Your task to perform on an android device: turn off javascript in the chrome app Image 0: 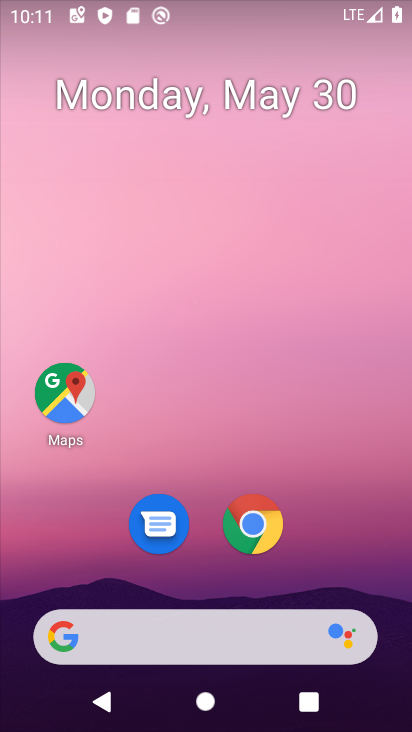
Step 0: click (251, 505)
Your task to perform on an android device: turn off javascript in the chrome app Image 1: 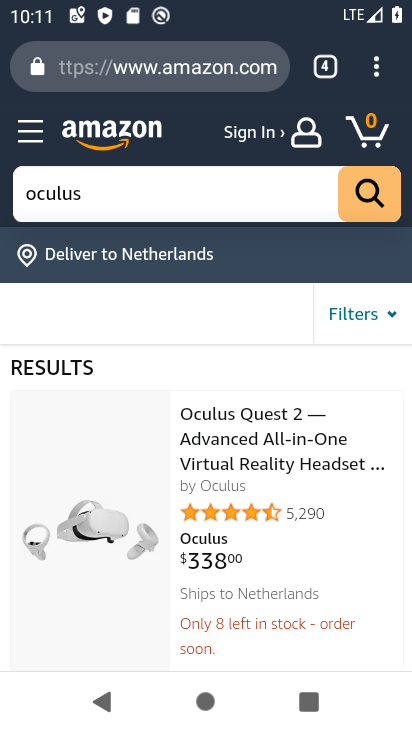
Step 1: click (378, 74)
Your task to perform on an android device: turn off javascript in the chrome app Image 2: 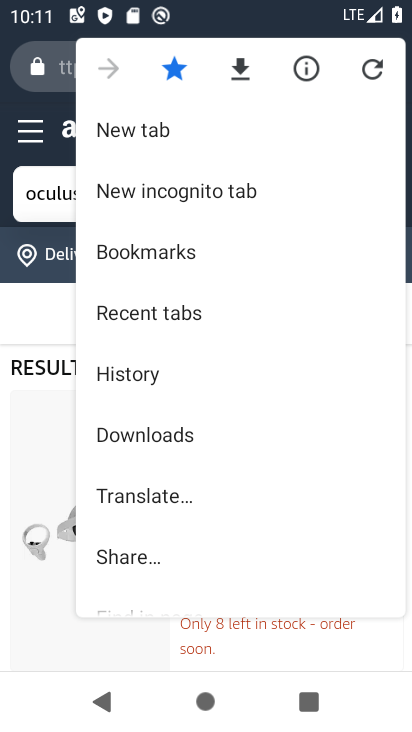
Step 2: drag from (300, 464) to (336, 172)
Your task to perform on an android device: turn off javascript in the chrome app Image 3: 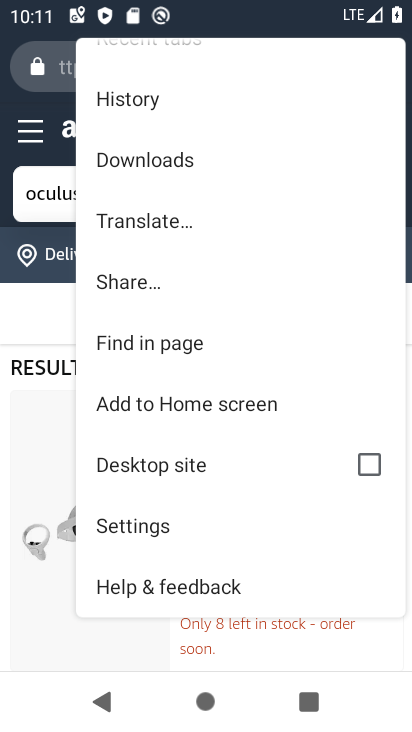
Step 3: click (207, 528)
Your task to perform on an android device: turn off javascript in the chrome app Image 4: 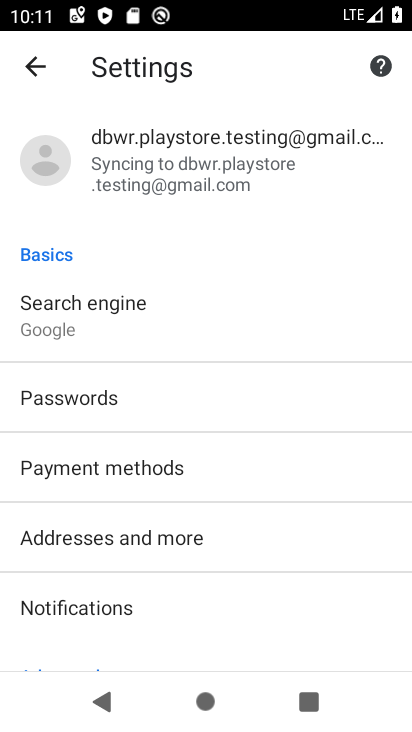
Step 4: drag from (220, 579) to (245, 291)
Your task to perform on an android device: turn off javascript in the chrome app Image 5: 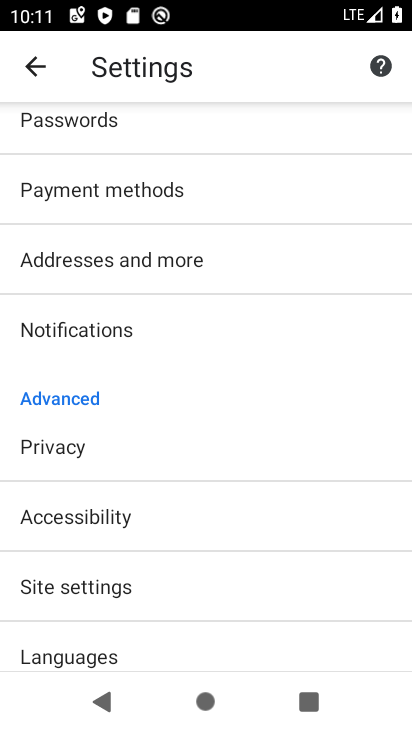
Step 5: click (209, 579)
Your task to perform on an android device: turn off javascript in the chrome app Image 6: 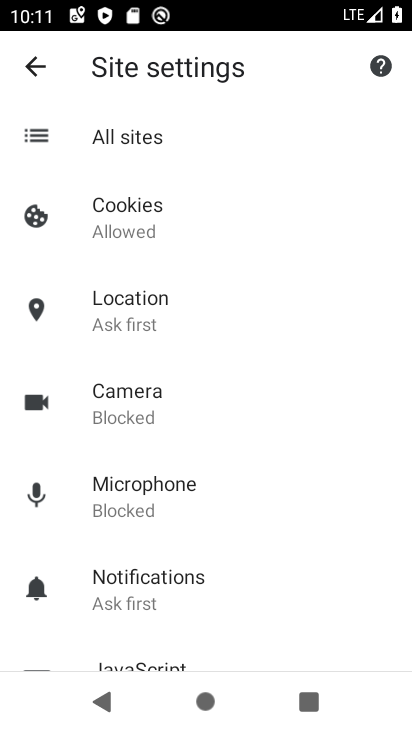
Step 6: drag from (246, 478) to (240, 233)
Your task to perform on an android device: turn off javascript in the chrome app Image 7: 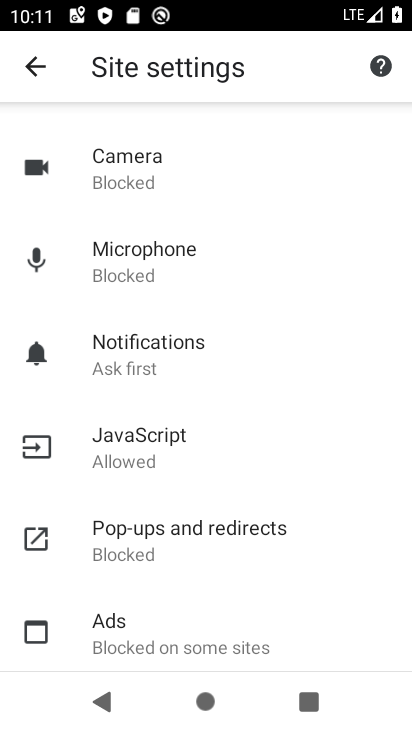
Step 7: click (208, 445)
Your task to perform on an android device: turn off javascript in the chrome app Image 8: 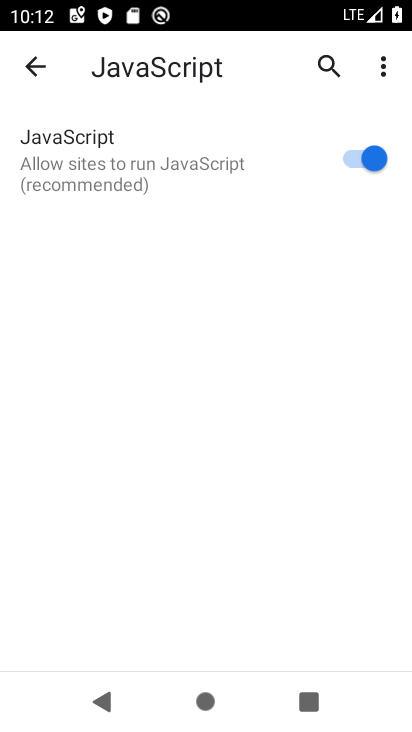
Step 8: click (353, 159)
Your task to perform on an android device: turn off javascript in the chrome app Image 9: 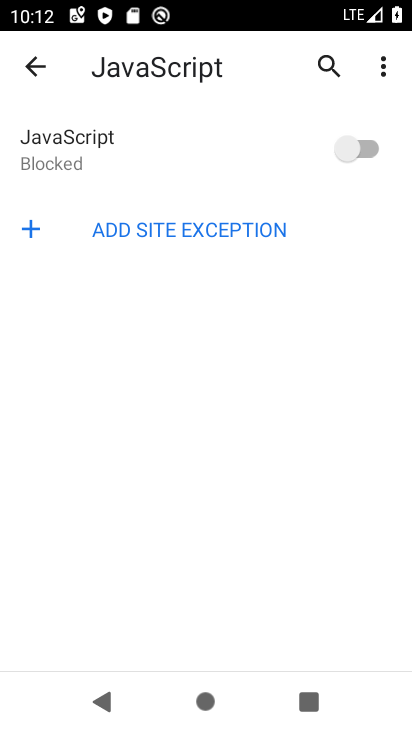
Step 9: task complete